Your task to perform on an android device: Open the calendar app, open the side menu, and click the "Day" option Image 0: 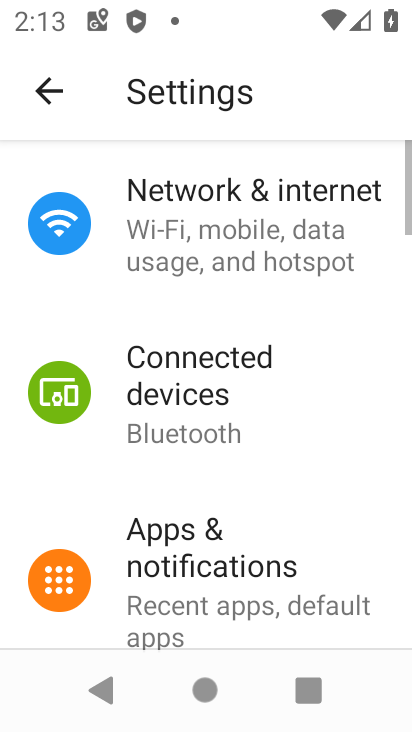
Step 0: press home button
Your task to perform on an android device: Open the calendar app, open the side menu, and click the "Day" option Image 1: 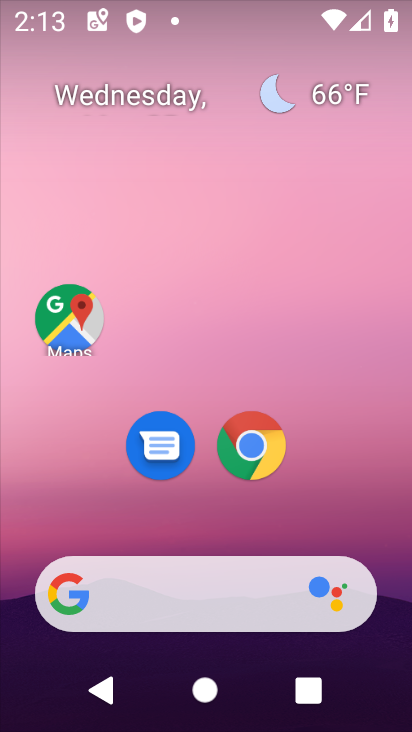
Step 1: drag from (97, 343) to (189, 142)
Your task to perform on an android device: Open the calendar app, open the side menu, and click the "Day" option Image 2: 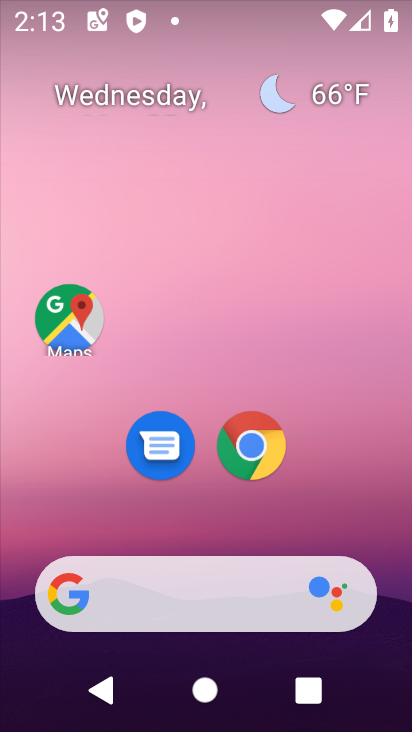
Step 2: drag from (47, 470) to (208, 117)
Your task to perform on an android device: Open the calendar app, open the side menu, and click the "Day" option Image 3: 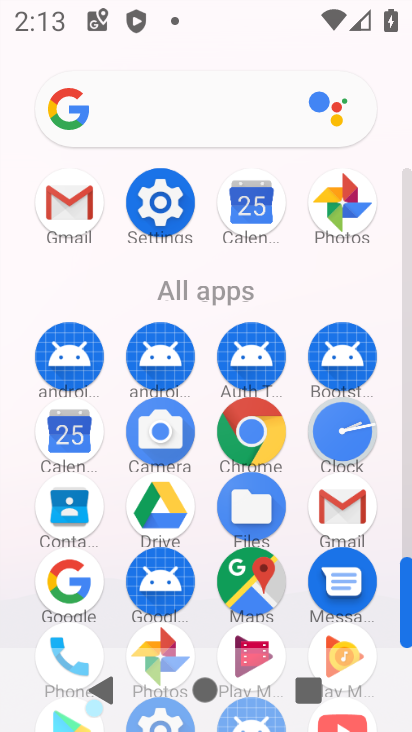
Step 3: click (79, 432)
Your task to perform on an android device: Open the calendar app, open the side menu, and click the "Day" option Image 4: 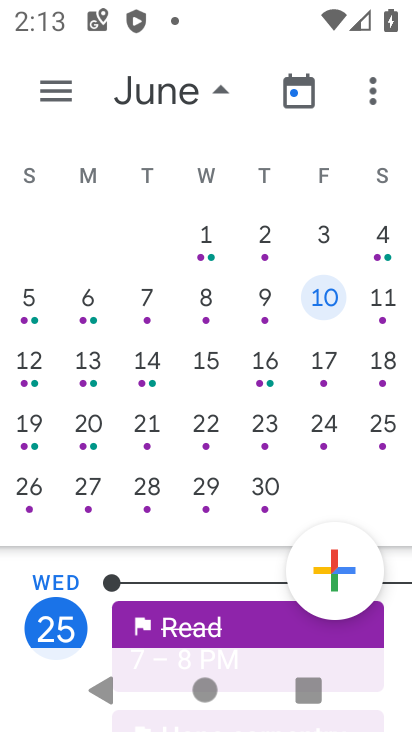
Step 4: click (77, 89)
Your task to perform on an android device: Open the calendar app, open the side menu, and click the "Day" option Image 5: 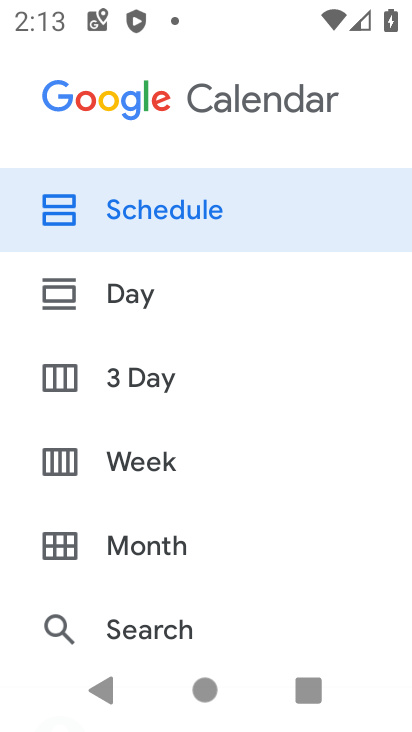
Step 5: click (162, 294)
Your task to perform on an android device: Open the calendar app, open the side menu, and click the "Day" option Image 6: 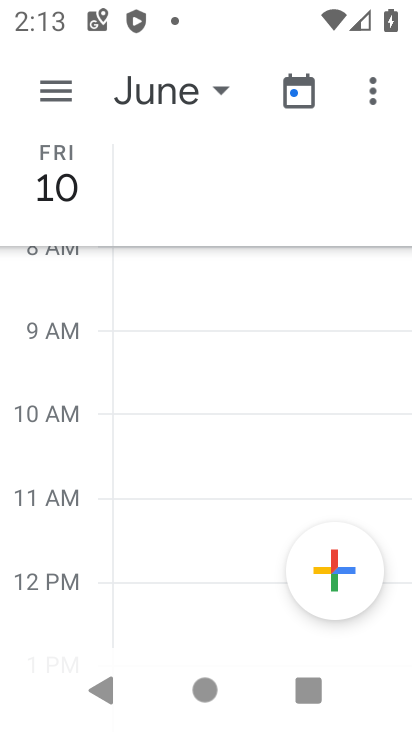
Step 6: task complete